Your task to perform on an android device: Open maps Image 0: 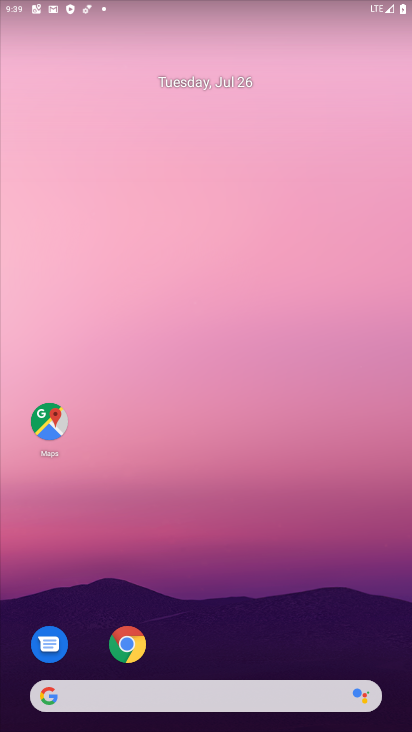
Step 0: click (49, 421)
Your task to perform on an android device: Open maps Image 1: 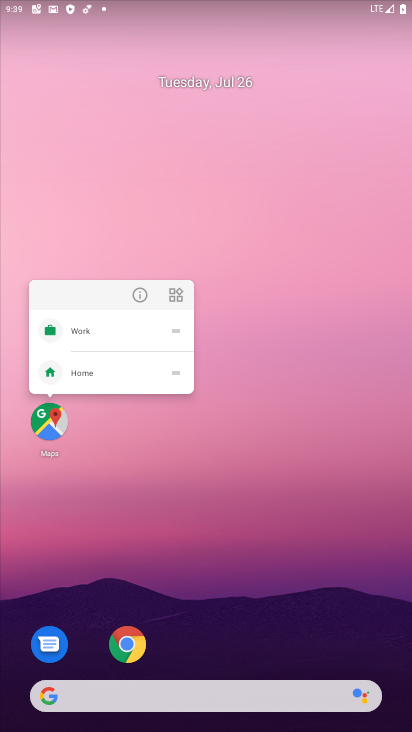
Step 1: click (49, 421)
Your task to perform on an android device: Open maps Image 2: 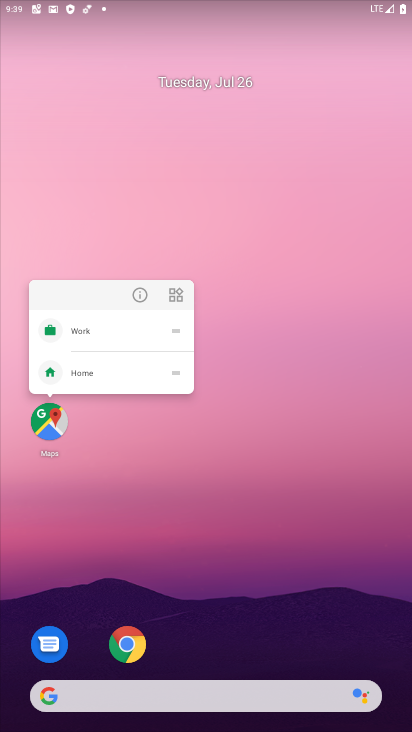
Step 2: click (49, 424)
Your task to perform on an android device: Open maps Image 3: 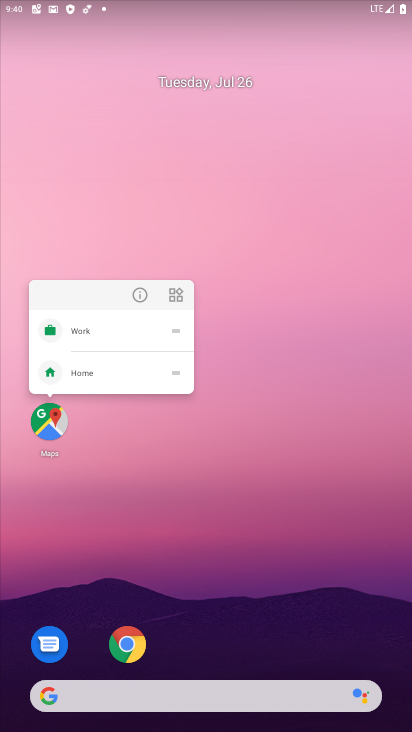
Step 3: click (49, 424)
Your task to perform on an android device: Open maps Image 4: 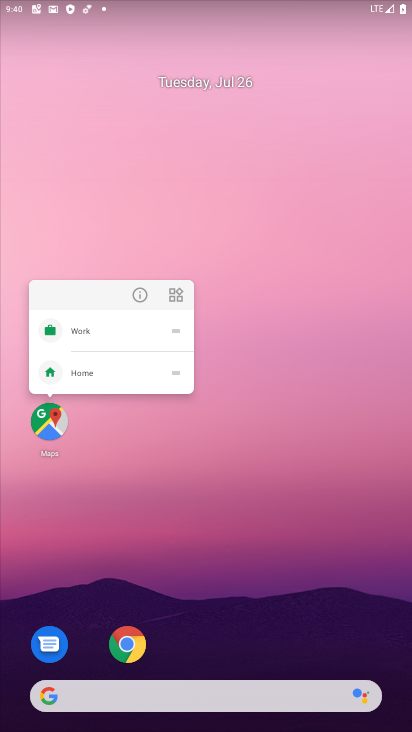
Step 4: click (49, 424)
Your task to perform on an android device: Open maps Image 5: 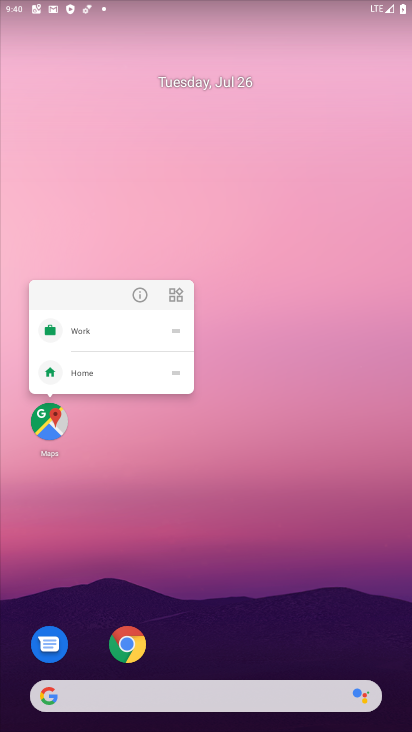
Step 5: click (49, 424)
Your task to perform on an android device: Open maps Image 6: 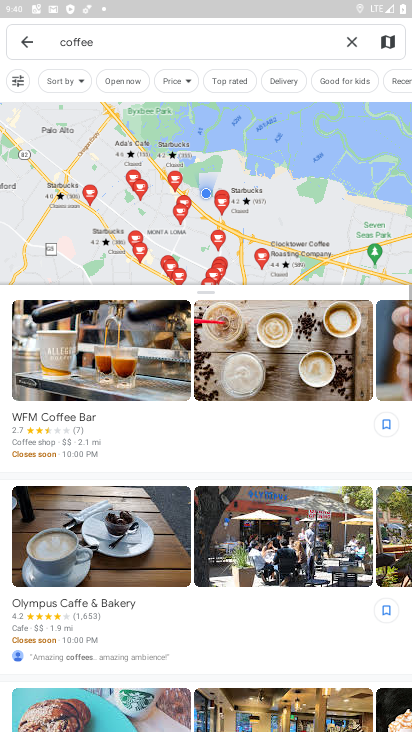
Step 6: task complete